Your task to perform on an android device: Go to Google Image 0: 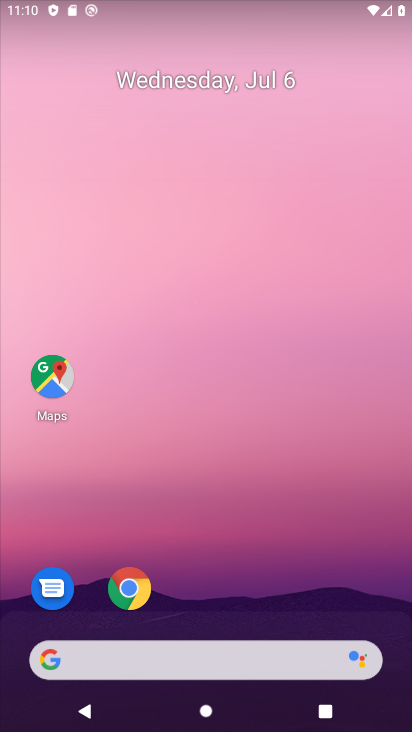
Step 0: drag from (234, 561) to (221, 137)
Your task to perform on an android device: Go to Google Image 1: 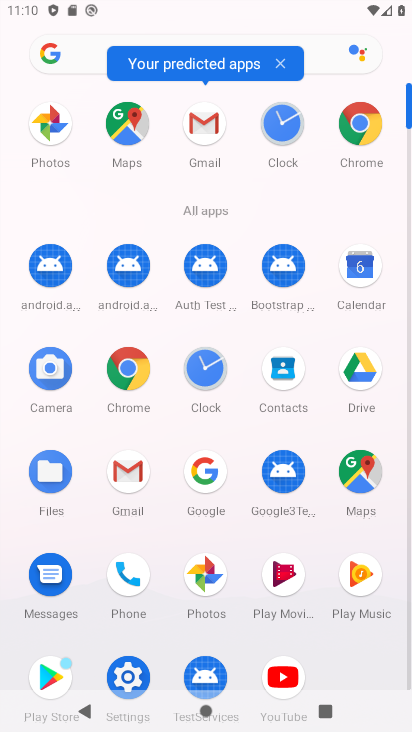
Step 1: click (202, 480)
Your task to perform on an android device: Go to Google Image 2: 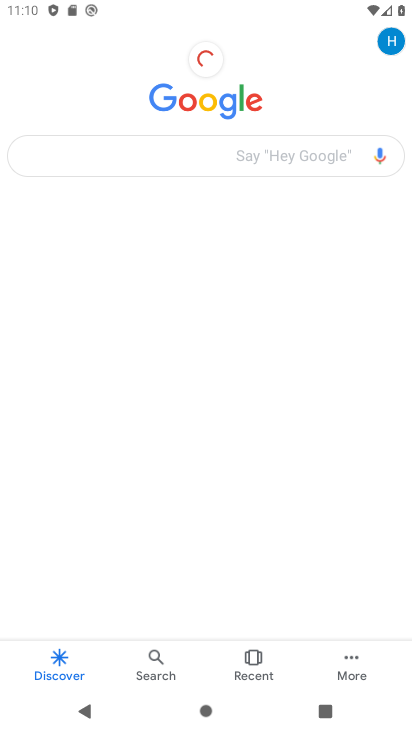
Step 2: click (196, 480)
Your task to perform on an android device: Go to Google Image 3: 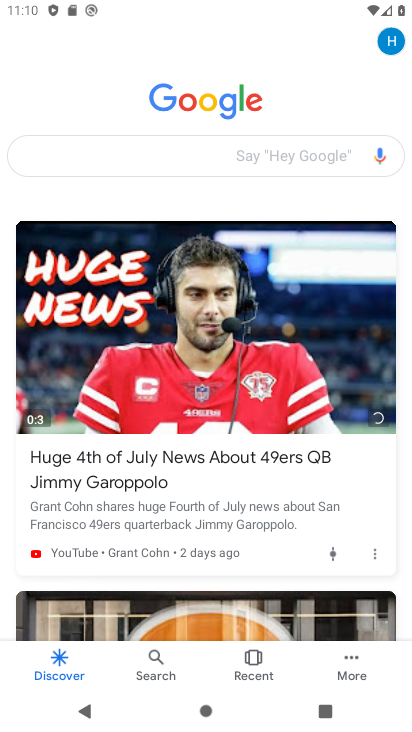
Step 3: task complete